Your task to perform on an android device: Go to Amazon Image 0: 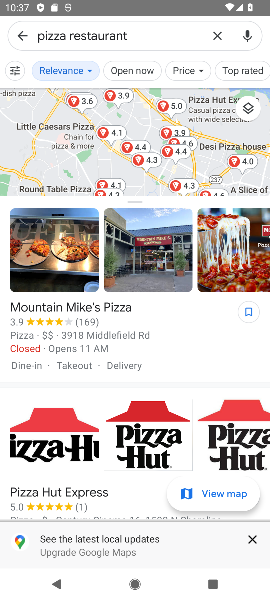
Step 0: press home button
Your task to perform on an android device: Go to Amazon Image 1: 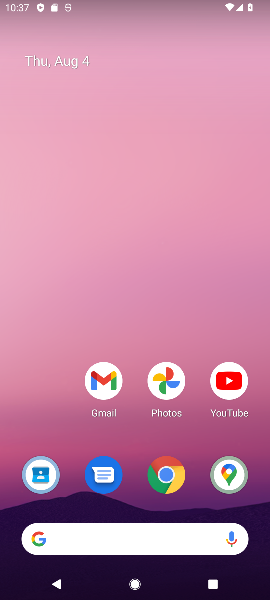
Step 1: drag from (136, 442) to (166, 190)
Your task to perform on an android device: Go to Amazon Image 2: 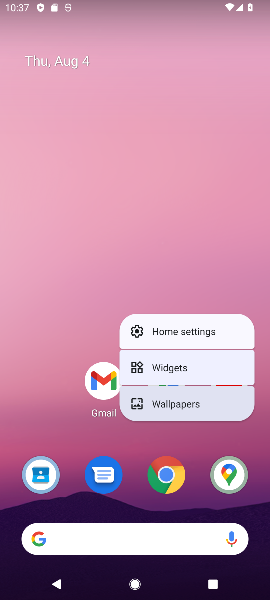
Step 2: click (164, 193)
Your task to perform on an android device: Go to Amazon Image 3: 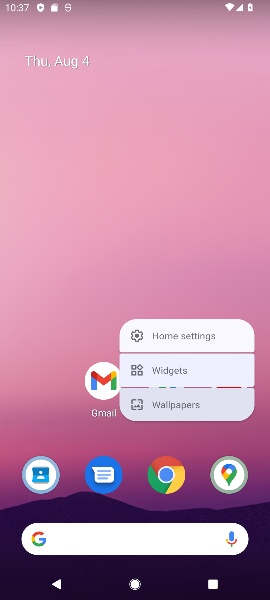
Step 3: click (164, 193)
Your task to perform on an android device: Go to Amazon Image 4: 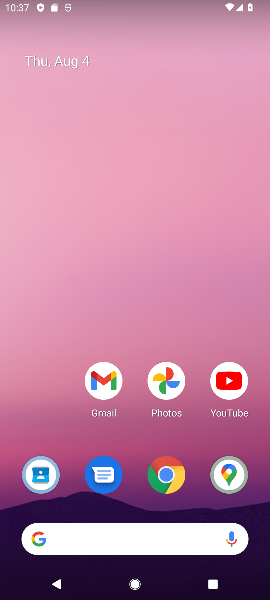
Step 4: click (175, 458)
Your task to perform on an android device: Go to Amazon Image 5: 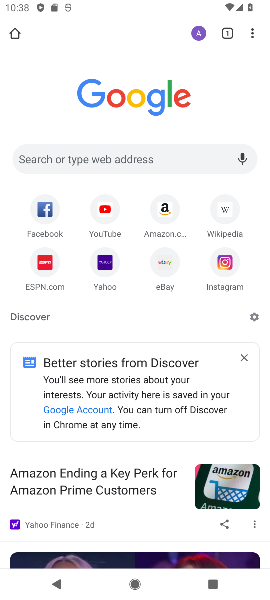
Step 5: click (168, 205)
Your task to perform on an android device: Go to Amazon Image 6: 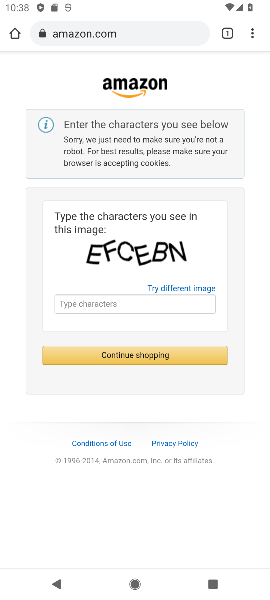
Step 6: task complete